Your task to perform on an android device: find snoozed emails in the gmail app Image 0: 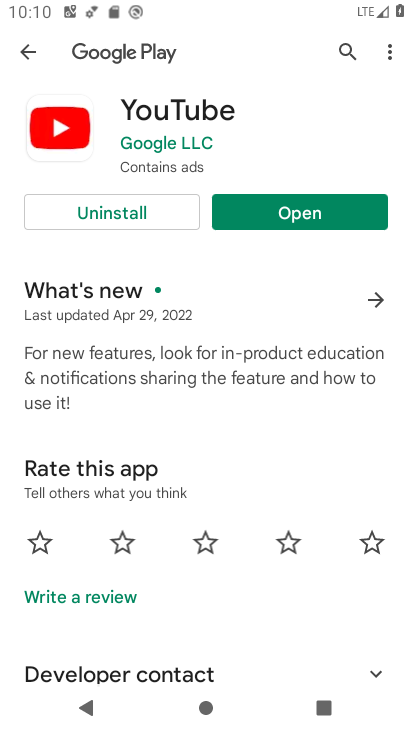
Step 0: click (284, 207)
Your task to perform on an android device: find snoozed emails in the gmail app Image 1: 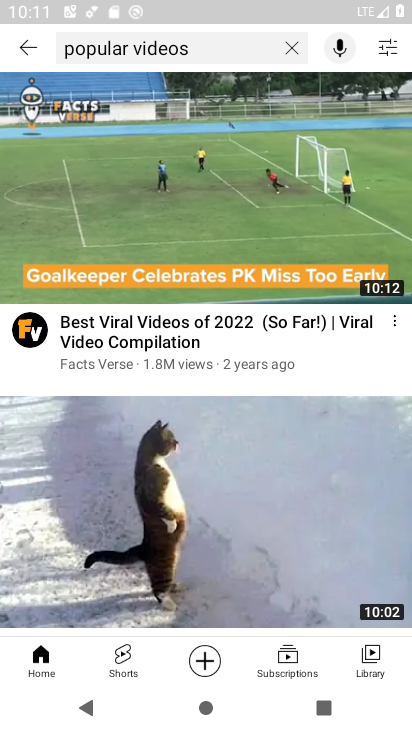
Step 1: press home button
Your task to perform on an android device: find snoozed emails in the gmail app Image 2: 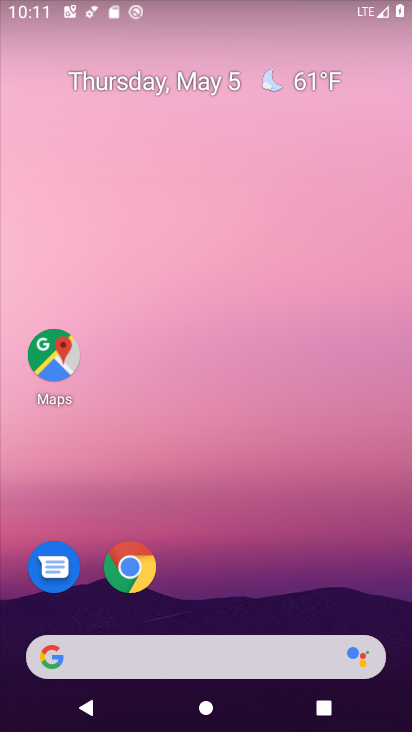
Step 2: drag from (300, 553) to (296, 34)
Your task to perform on an android device: find snoozed emails in the gmail app Image 3: 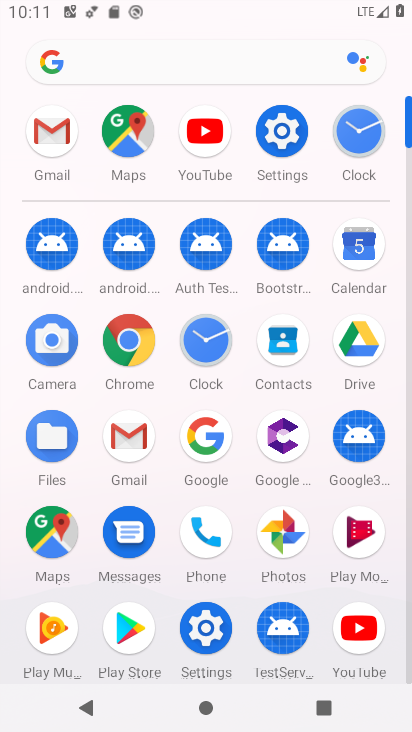
Step 3: click (59, 132)
Your task to perform on an android device: find snoozed emails in the gmail app Image 4: 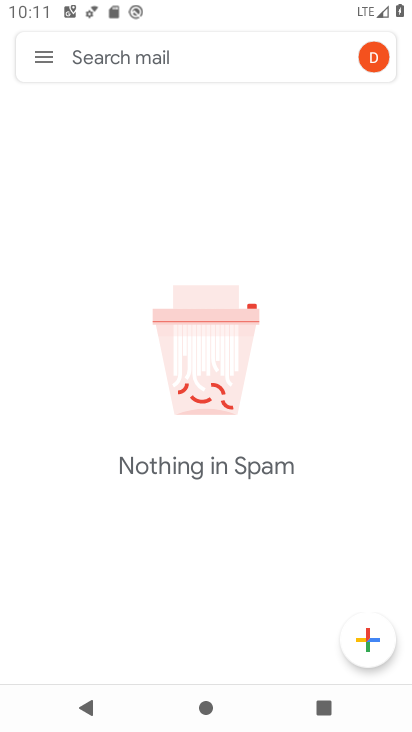
Step 4: click (49, 60)
Your task to perform on an android device: find snoozed emails in the gmail app Image 5: 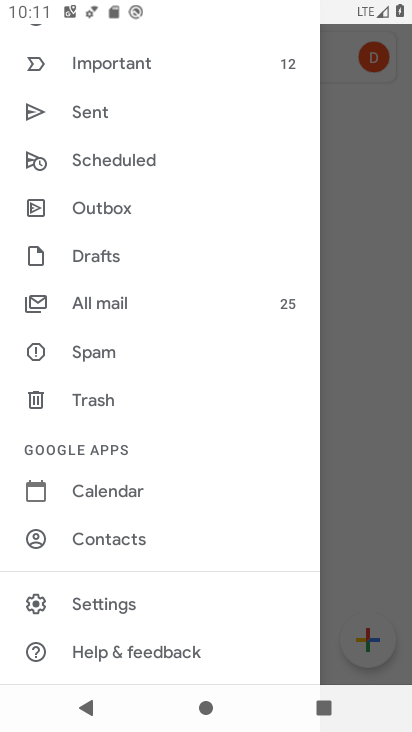
Step 5: drag from (157, 113) to (111, 343)
Your task to perform on an android device: find snoozed emails in the gmail app Image 6: 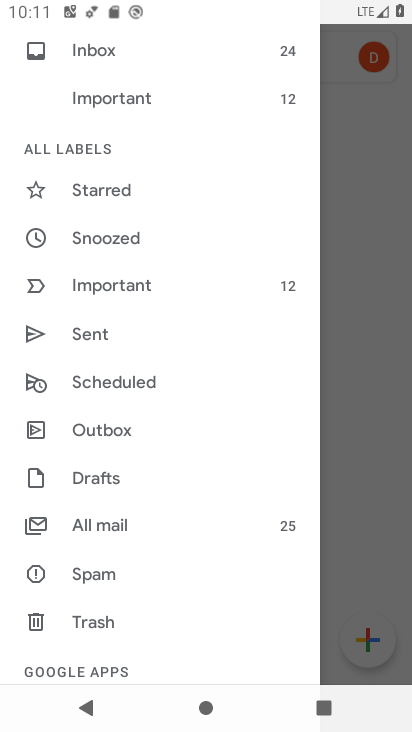
Step 6: click (123, 235)
Your task to perform on an android device: find snoozed emails in the gmail app Image 7: 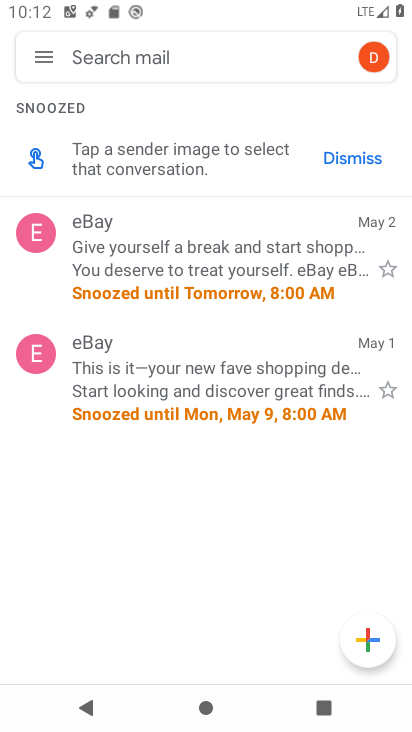
Step 7: task complete